Your task to perform on an android device: Go to Android settings Image 0: 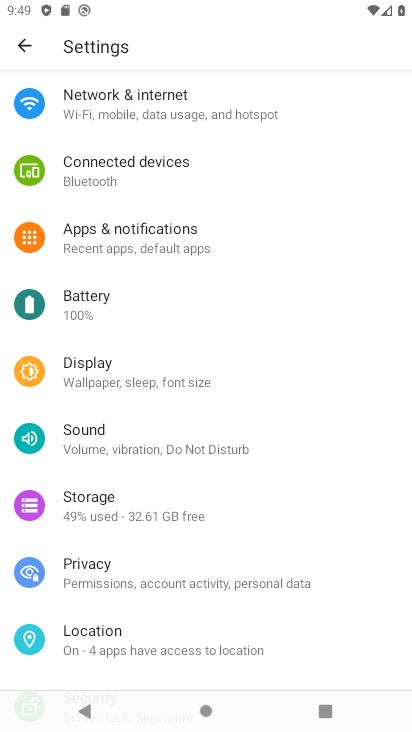
Step 0: drag from (165, 649) to (254, 169)
Your task to perform on an android device: Go to Android settings Image 1: 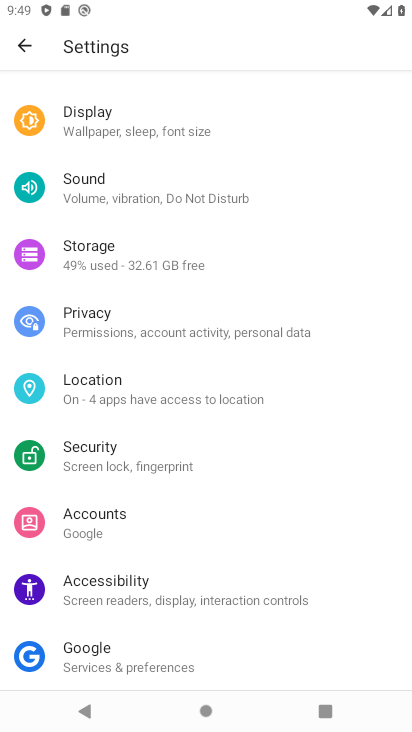
Step 1: drag from (204, 633) to (300, 60)
Your task to perform on an android device: Go to Android settings Image 2: 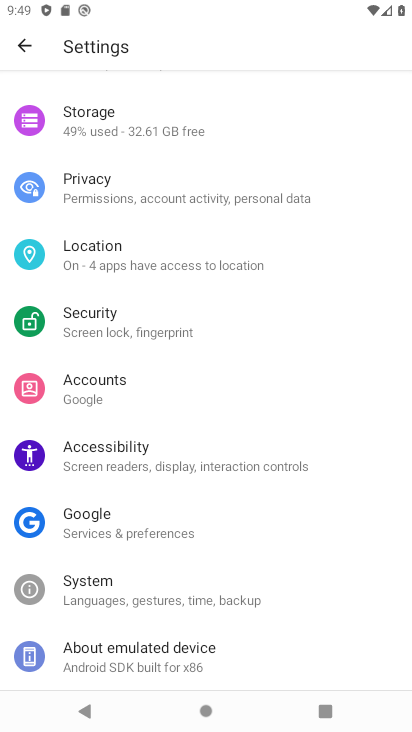
Step 2: click (142, 653)
Your task to perform on an android device: Go to Android settings Image 3: 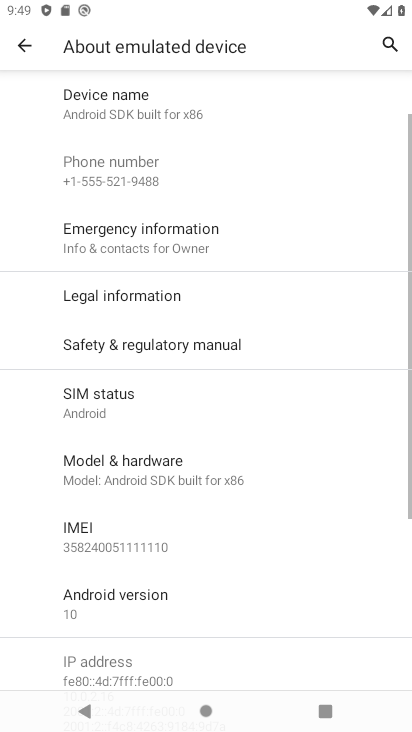
Step 3: click (149, 593)
Your task to perform on an android device: Go to Android settings Image 4: 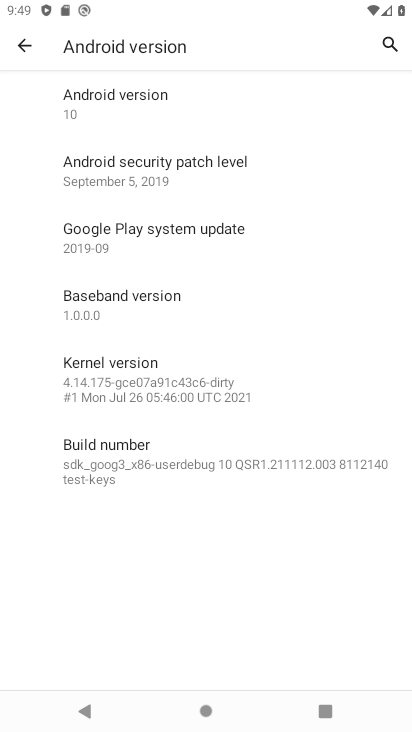
Step 4: task complete